Your task to perform on an android device: Turn on the flashlight Image 0: 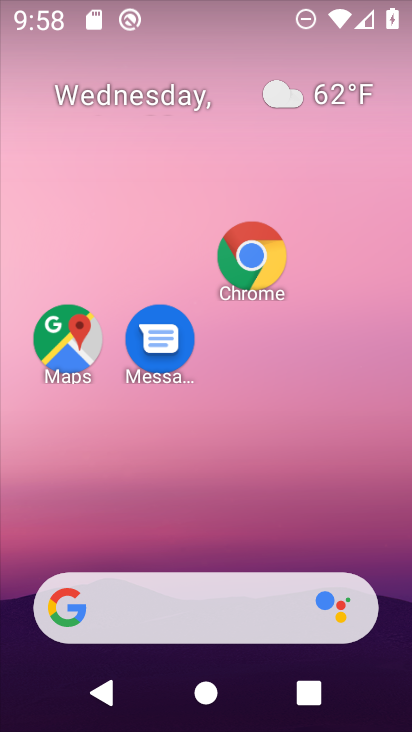
Step 0: drag from (200, 430) to (159, 91)
Your task to perform on an android device: Turn on the flashlight Image 1: 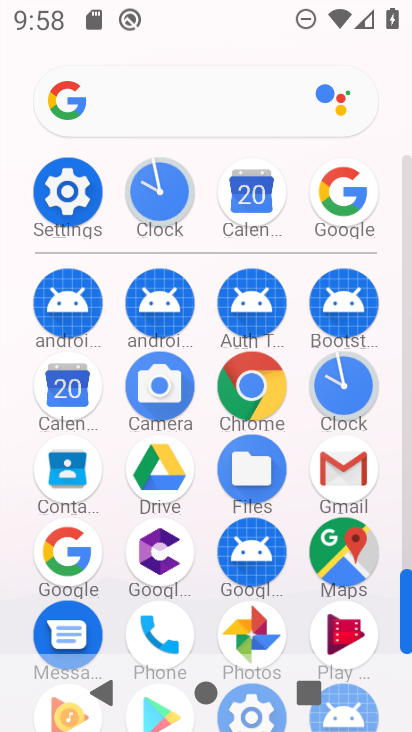
Step 1: click (66, 188)
Your task to perform on an android device: Turn on the flashlight Image 2: 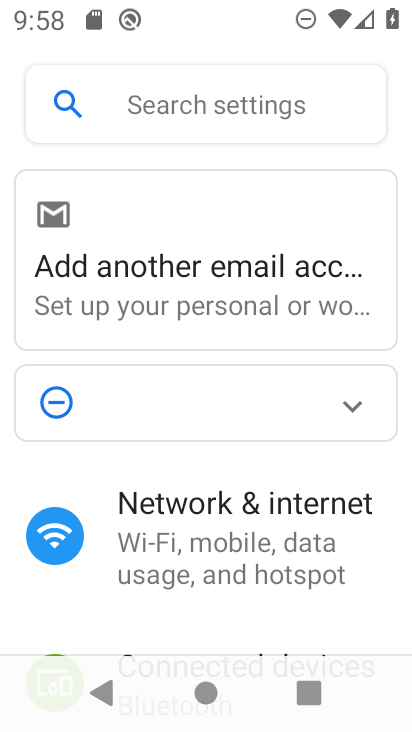
Step 2: click (161, 102)
Your task to perform on an android device: Turn on the flashlight Image 3: 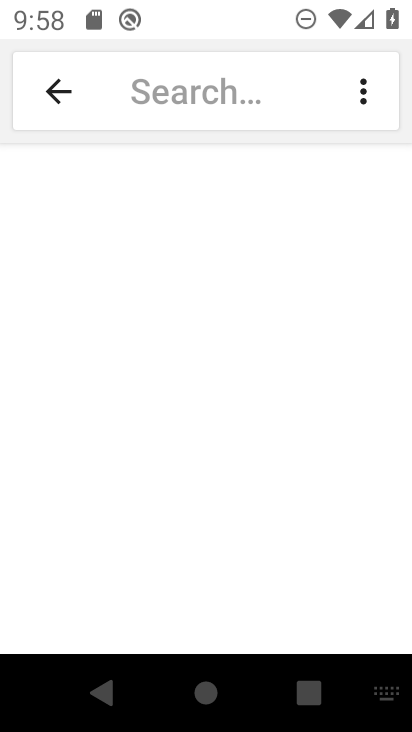
Step 3: type "flash"
Your task to perform on an android device: Turn on the flashlight Image 4: 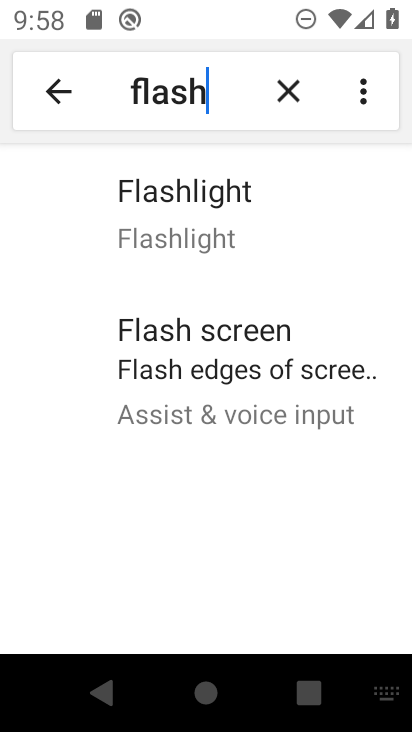
Step 4: click (154, 218)
Your task to perform on an android device: Turn on the flashlight Image 5: 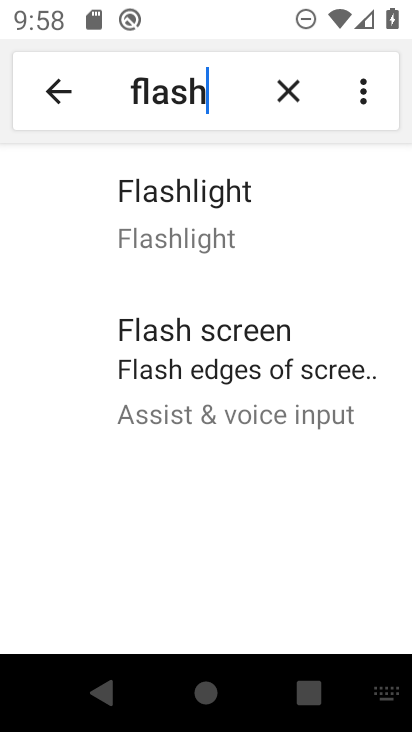
Step 5: task complete